Your task to perform on an android device: refresh tabs in the chrome app Image 0: 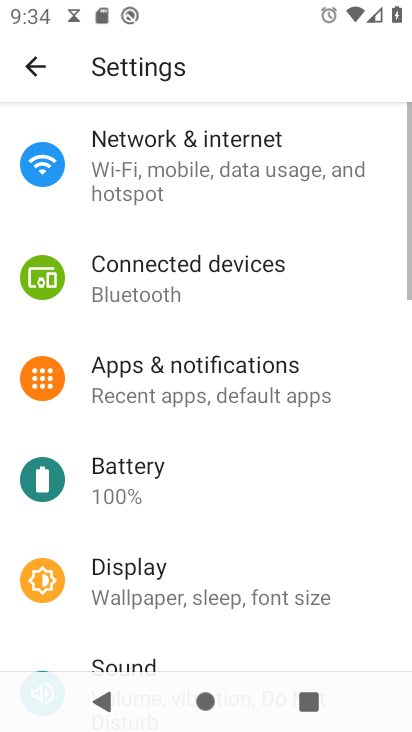
Step 0: press home button
Your task to perform on an android device: refresh tabs in the chrome app Image 1: 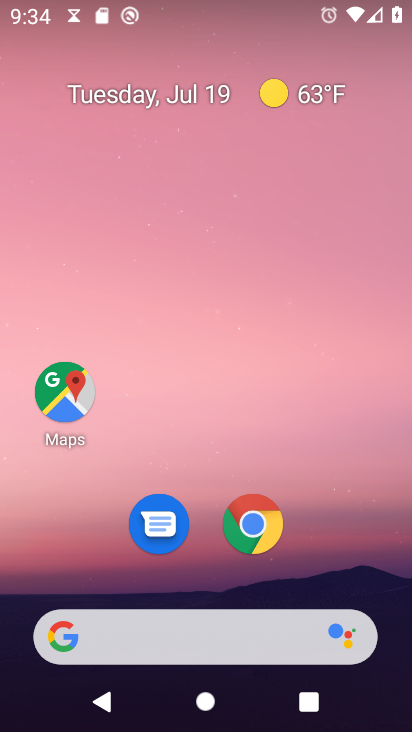
Step 1: click (258, 525)
Your task to perform on an android device: refresh tabs in the chrome app Image 2: 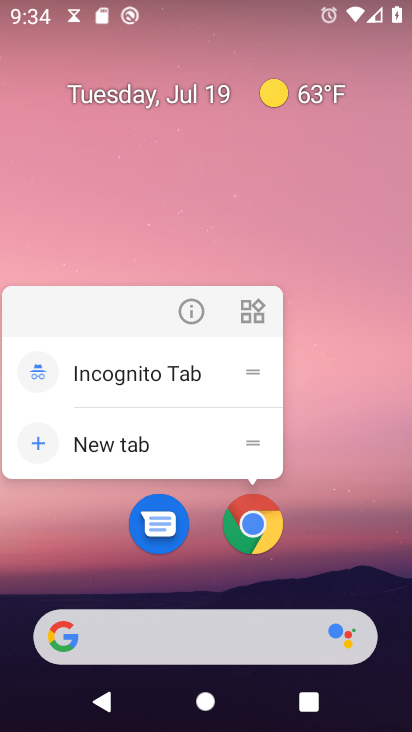
Step 2: click (256, 527)
Your task to perform on an android device: refresh tabs in the chrome app Image 3: 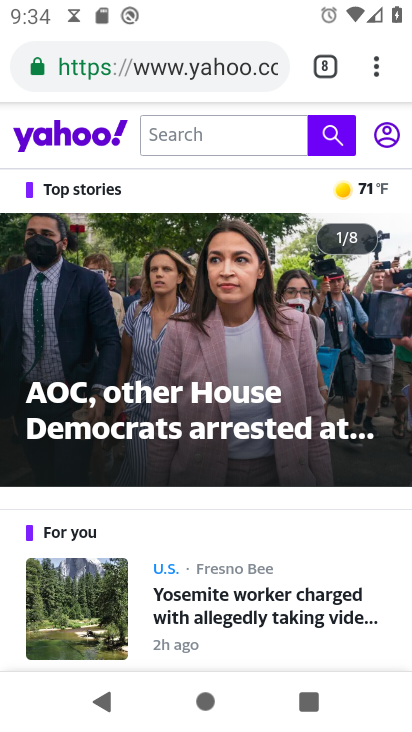
Step 3: click (376, 89)
Your task to perform on an android device: refresh tabs in the chrome app Image 4: 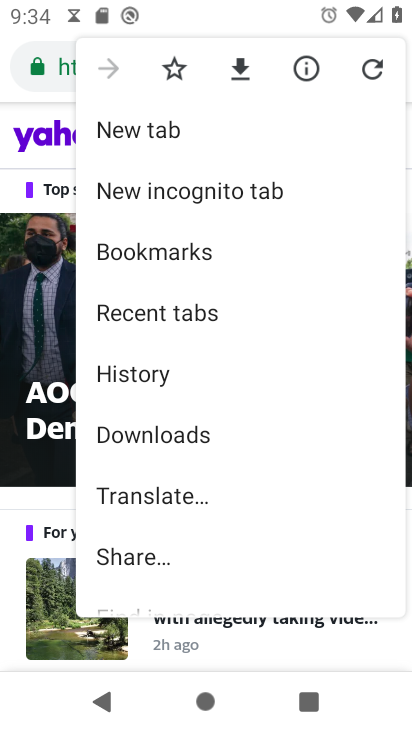
Step 4: click (374, 70)
Your task to perform on an android device: refresh tabs in the chrome app Image 5: 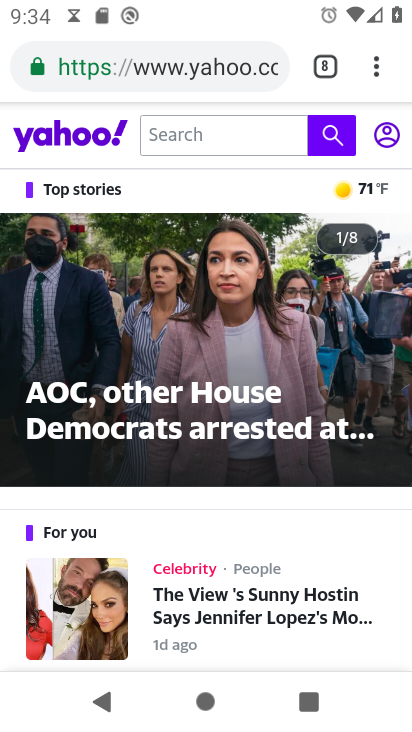
Step 5: task complete